Your task to perform on an android device: change keyboard looks Image 0: 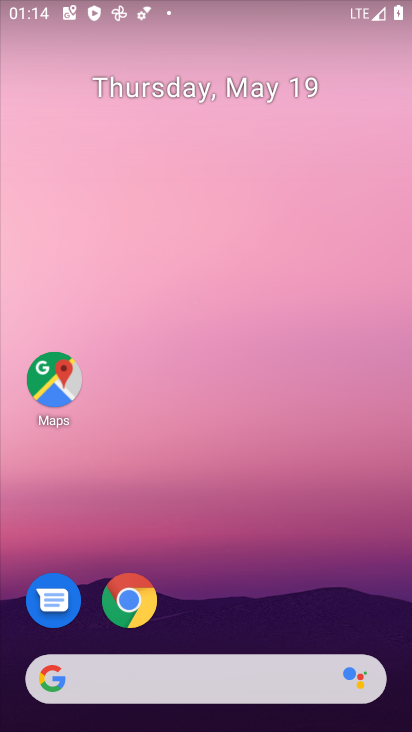
Step 0: drag from (247, 508) to (228, 156)
Your task to perform on an android device: change keyboard looks Image 1: 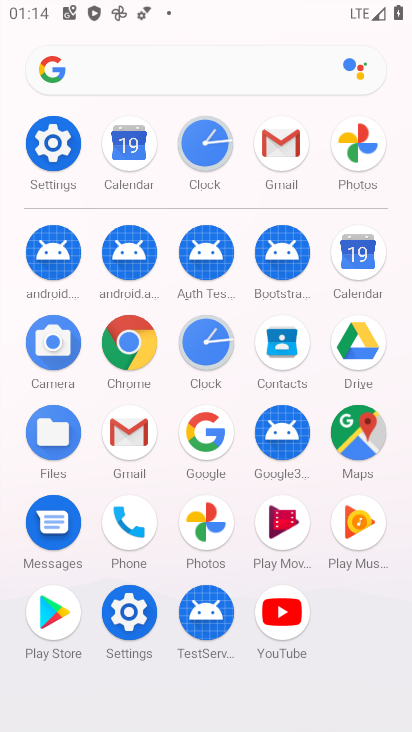
Step 1: click (47, 146)
Your task to perform on an android device: change keyboard looks Image 2: 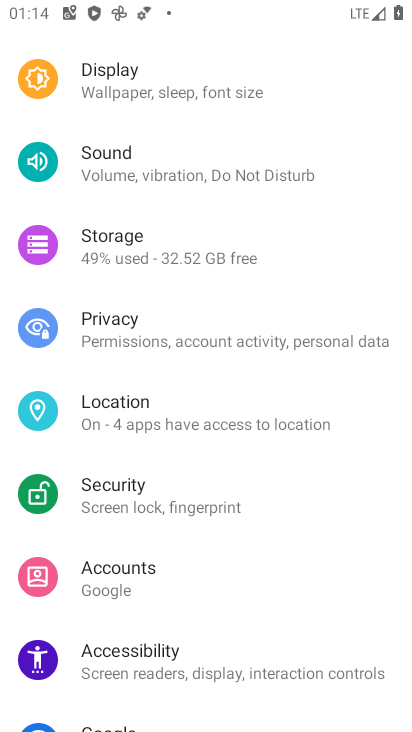
Step 2: drag from (226, 570) to (236, 148)
Your task to perform on an android device: change keyboard looks Image 3: 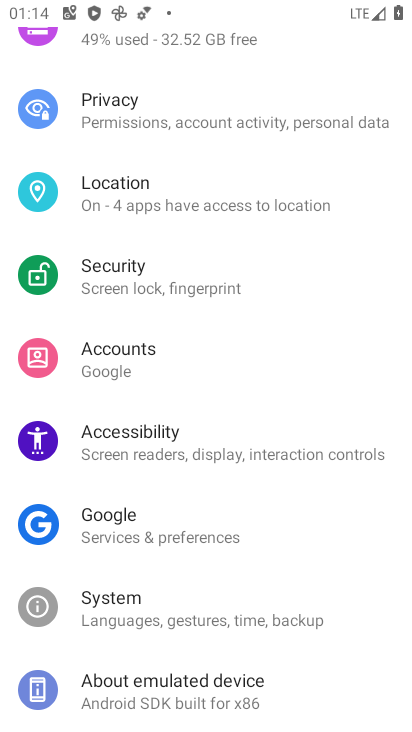
Step 3: click (109, 590)
Your task to perform on an android device: change keyboard looks Image 4: 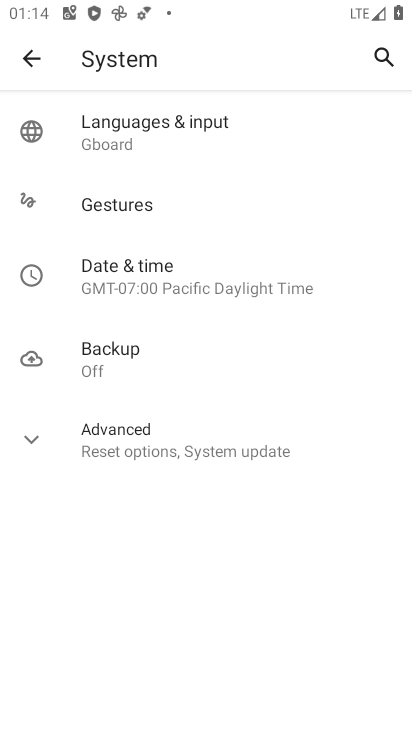
Step 4: click (126, 120)
Your task to perform on an android device: change keyboard looks Image 5: 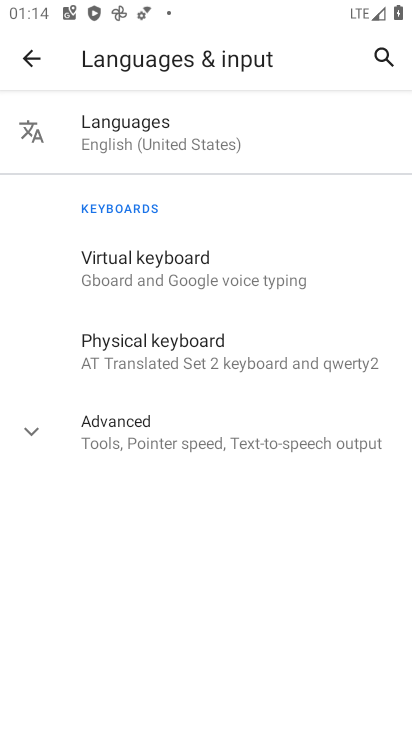
Step 5: click (138, 261)
Your task to perform on an android device: change keyboard looks Image 6: 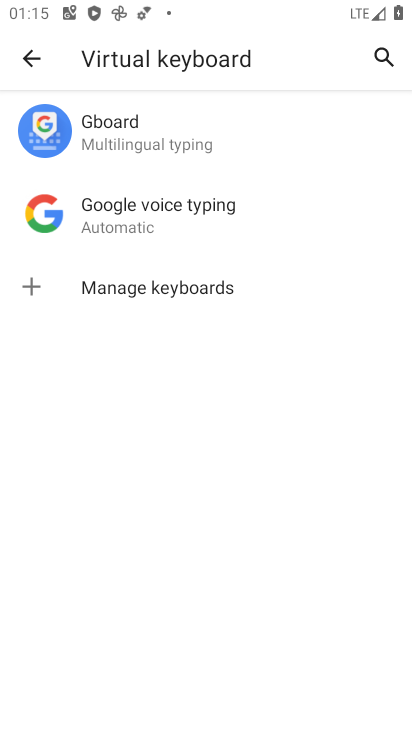
Step 6: click (99, 126)
Your task to perform on an android device: change keyboard looks Image 7: 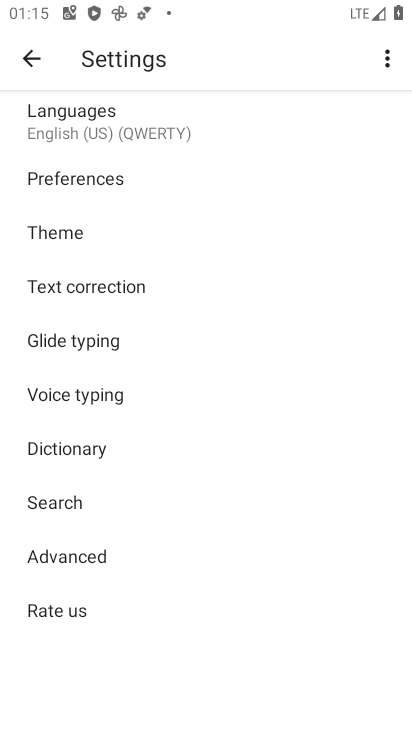
Step 7: click (60, 223)
Your task to perform on an android device: change keyboard looks Image 8: 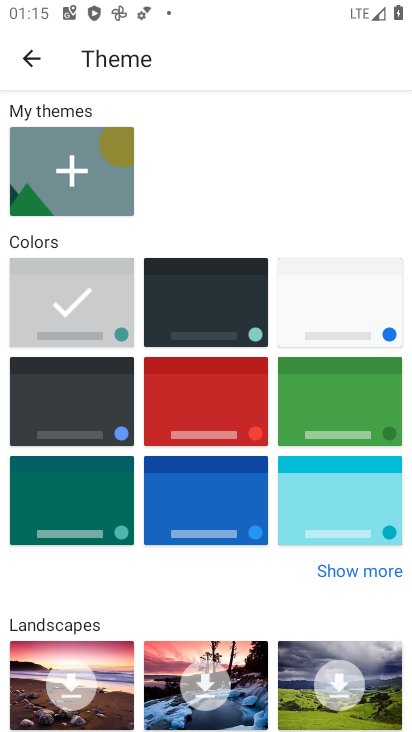
Step 8: click (338, 414)
Your task to perform on an android device: change keyboard looks Image 9: 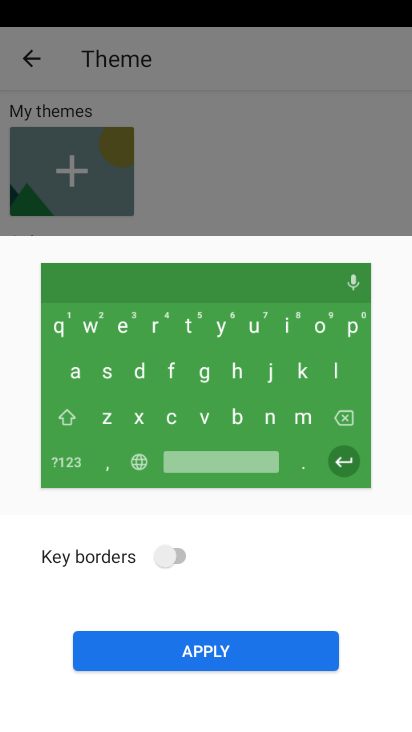
Step 9: click (205, 648)
Your task to perform on an android device: change keyboard looks Image 10: 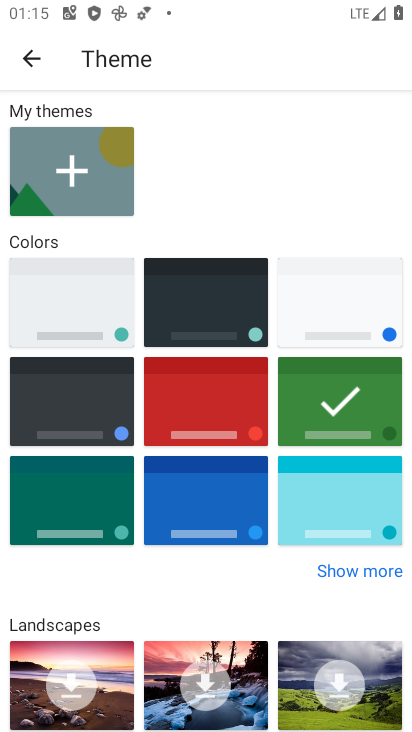
Step 10: task complete